Your task to perform on an android device: turn on showing notifications on the lock screen Image 0: 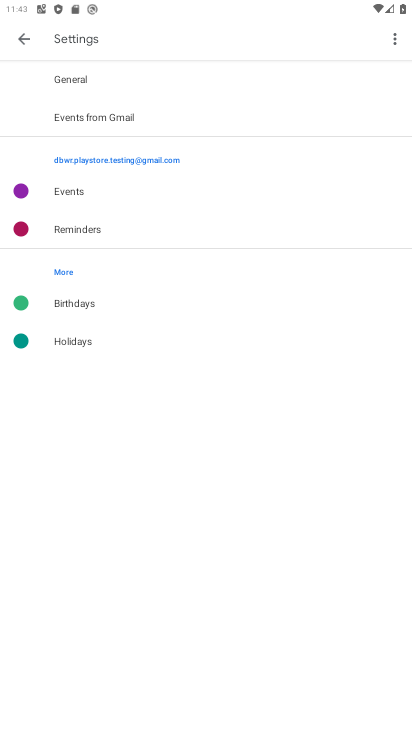
Step 0: press home button
Your task to perform on an android device: turn on showing notifications on the lock screen Image 1: 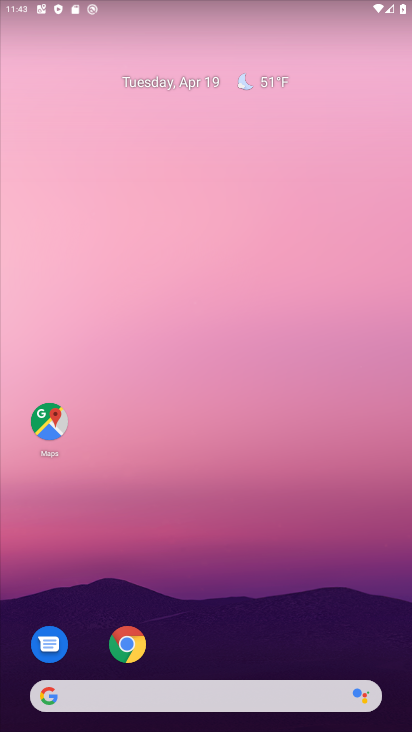
Step 1: drag from (214, 554) to (248, 40)
Your task to perform on an android device: turn on showing notifications on the lock screen Image 2: 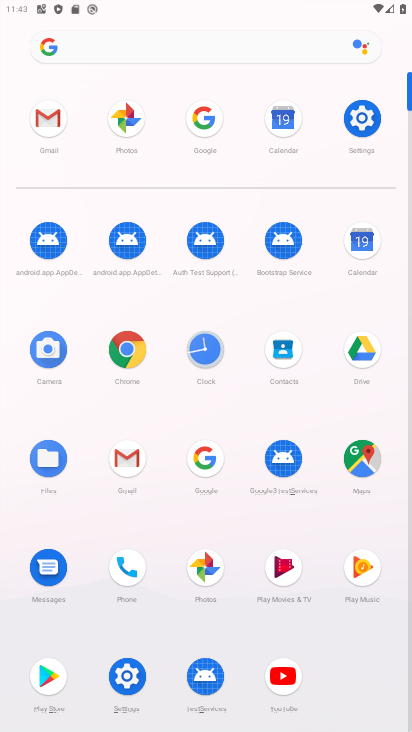
Step 2: click (352, 123)
Your task to perform on an android device: turn on showing notifications on the lock screen Image 3: 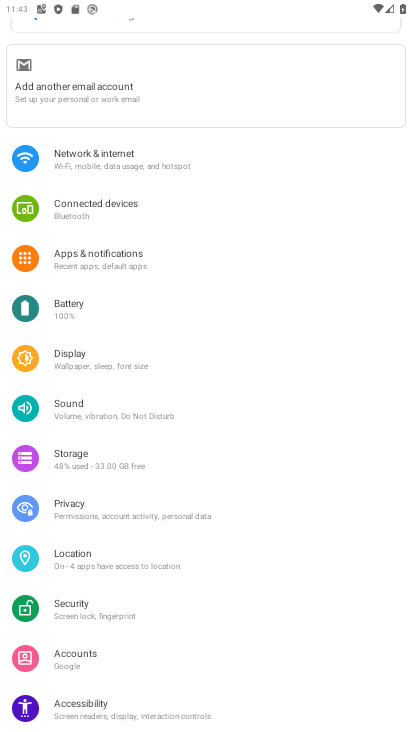
Step 3: click (122, 258)
Your task to perform on an android device: turn on showing notifications on the lock screen Image 4: 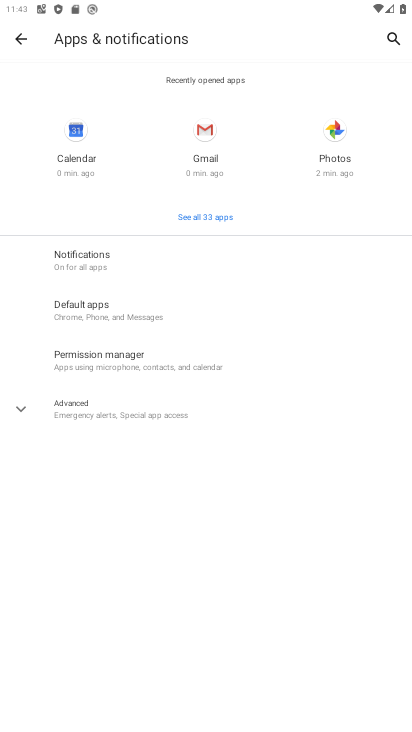
Step 4: click (123, 266)
Your task to perform on an android device: turn on showing notifications on the lock screen Image 5: 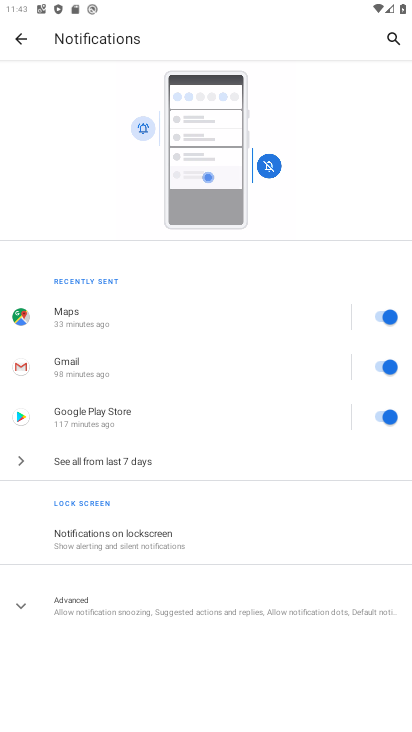
Step 5: click (130, 534)
Your task to perform on an android device: turn on showing notifications on the lock screen Image 6: 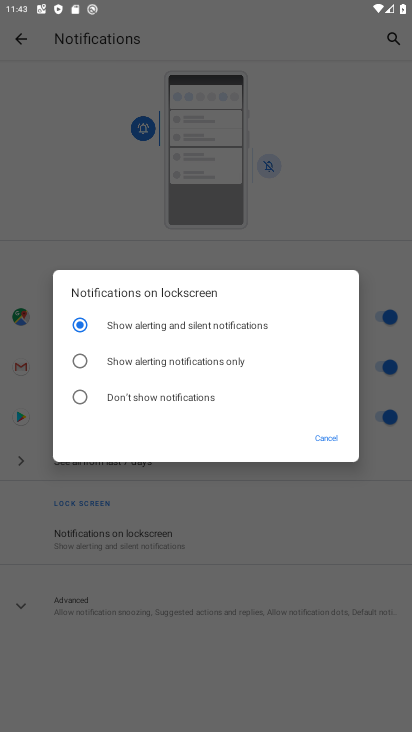
Step 6: task complete